Your task to perform on an android device: open sync settings in chrome Image 0: 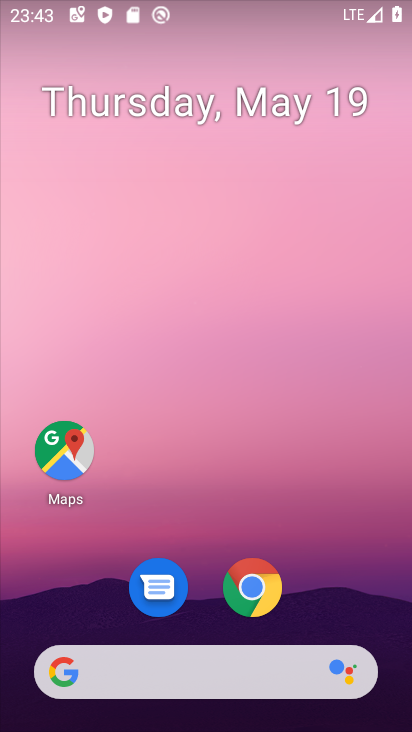
Step 0: drag from (243, 699) to (189, 105)
Your task to perform on an android device: open sync settings in chrome Image 1: 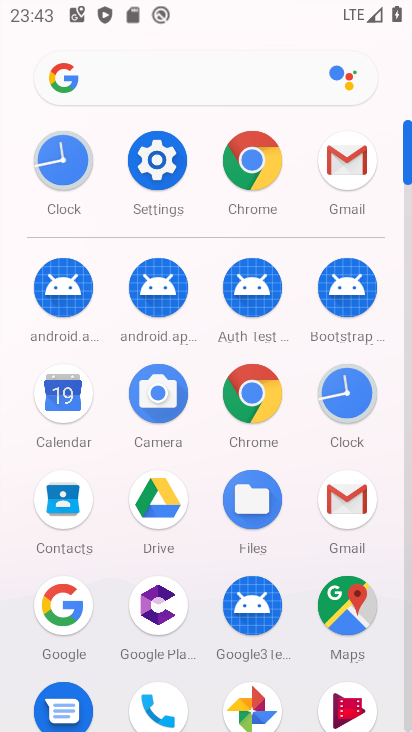
Step 1: click (245, 174)
Your task to perform on an android device: open sync settings in chrome Image 2: 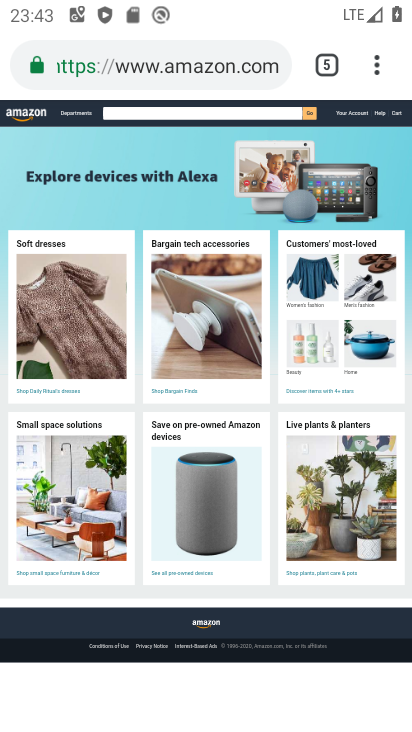
Step 2: click (364, 84)
Your task to perform on an android device: open sync settings in chrome Image 3: 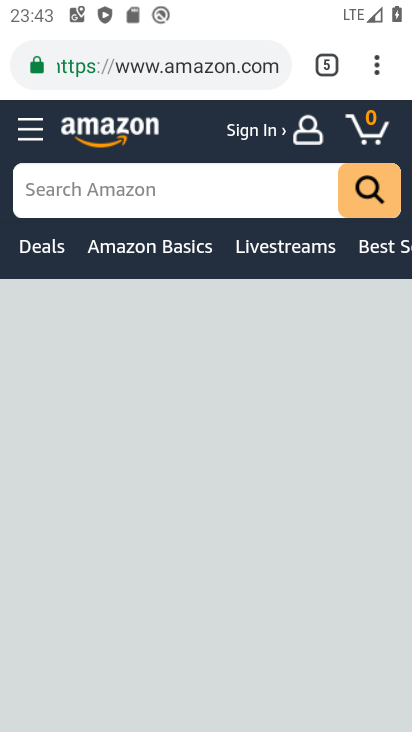
Step 3: click (367, 65)
Your task to perform on an android device: open sync settings in chrome Image 4: 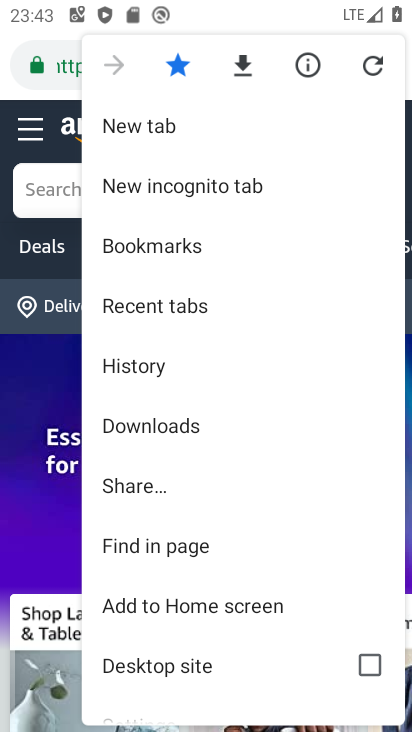
Step 4: drag from (190, 610) to (183, 439)
Your task to perform on an android device: open sync settings in chrome Image 5: 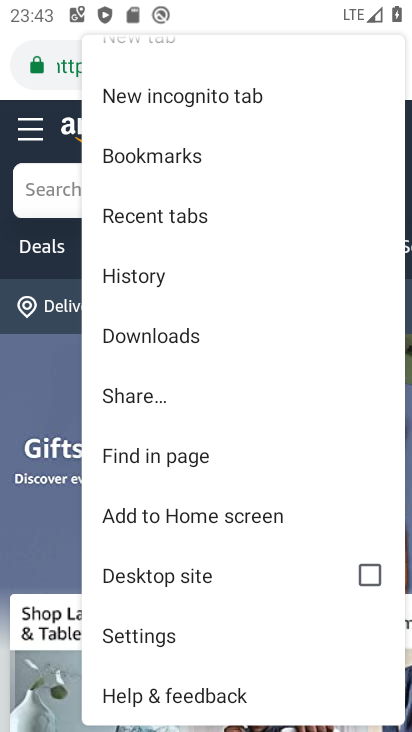
Step 5: click (197, 622)
Your task to perform on an android device: open sync settings in chrome Image 6: 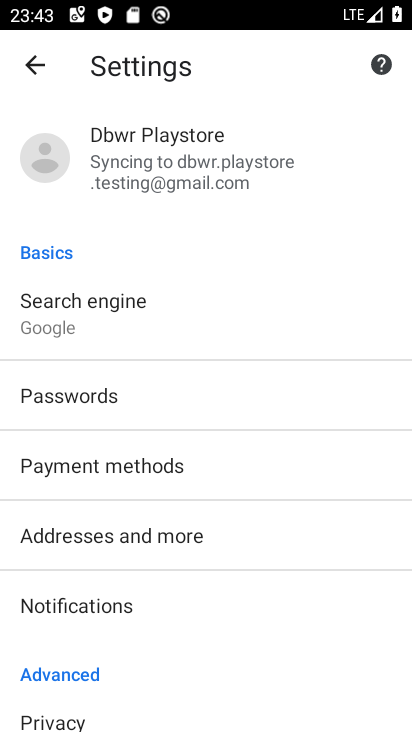
Step 6: drag from (176, 548) to (203, 288)
Your task to perform on an android device: open sync settings in chrome Image 7: 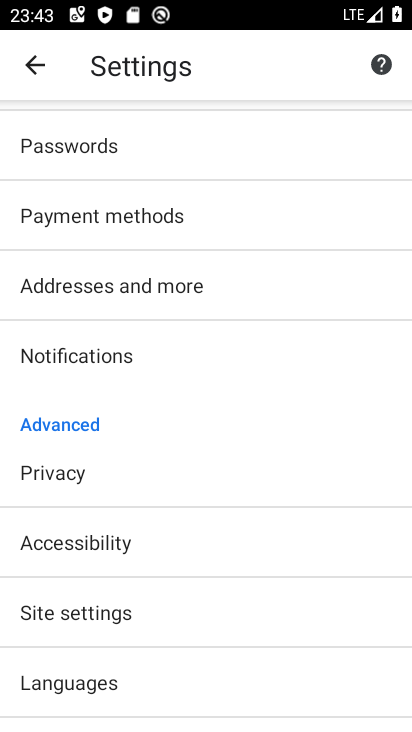
Step 7: drag from (212, 562) to (195, 409)
Your task to perform on an android device: open sync settings in chrome Image 8: 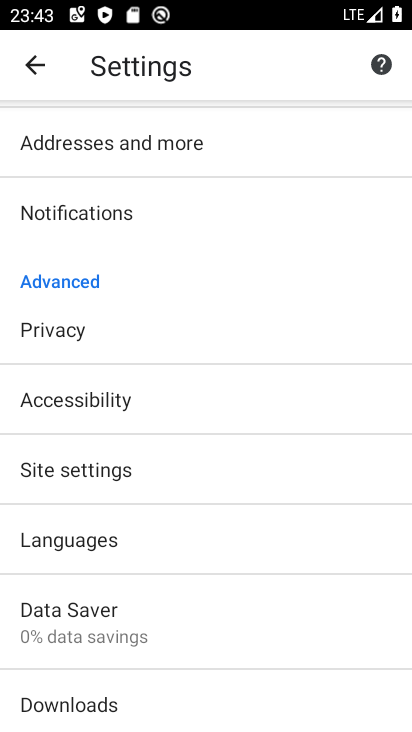
Step 8: drag from (196, 586) to (196, 436)
Your task to perform on an android device: open sync settings in chrome Image 9: 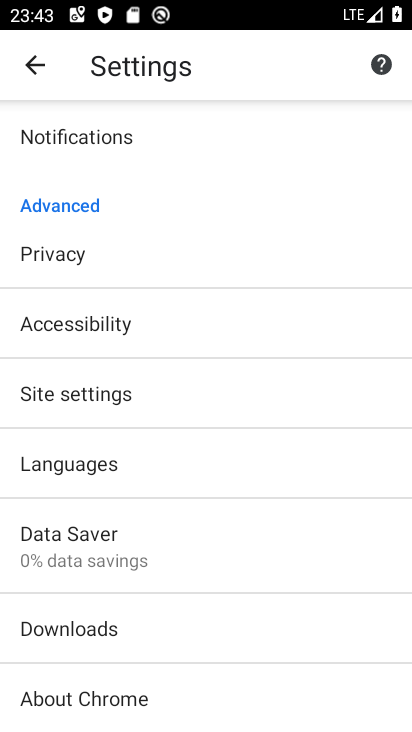
Step 9: click (103, 388)
Your task to perform on an android device: open sync settings in chrome Image 10: 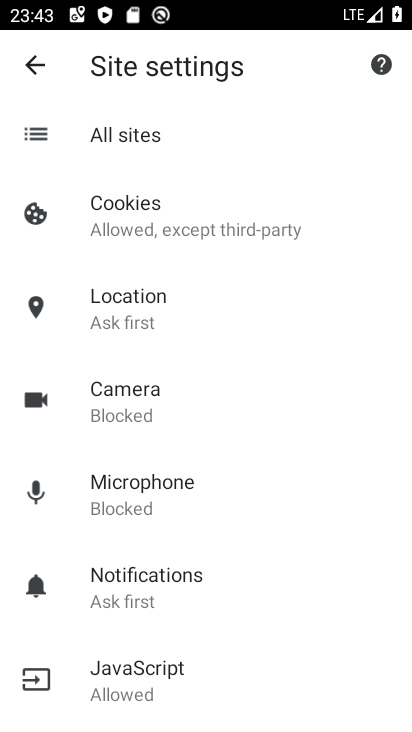
Step 10: drag from (201, 593) to (217, 337)
Your task to perform on an android device: open sync settings in chrome Image 11: 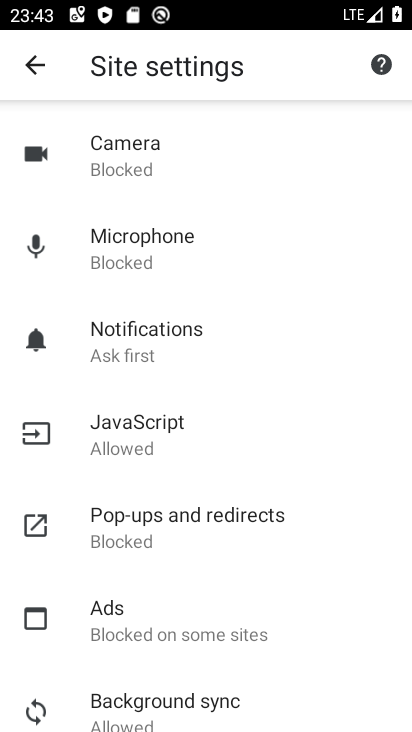
Step 11: click (194, 686)
Your task to perform on an android device: open sync settings in chrome Image 12: 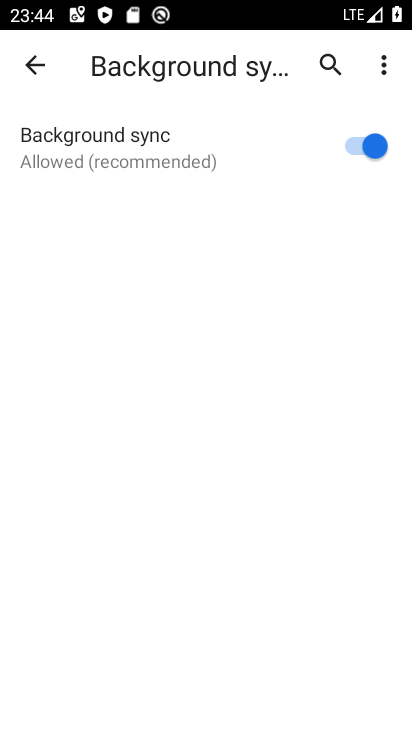
Step 12: click (337, 138)
Your task to perform on an android device: open sync settings in chrome Image 13: 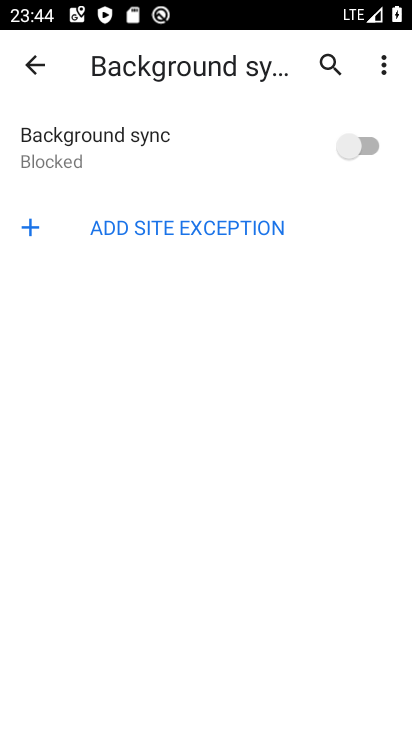
Step 13: click (337, 138)
Your task to perform on an android device: open sync settings in chrome Image 14: 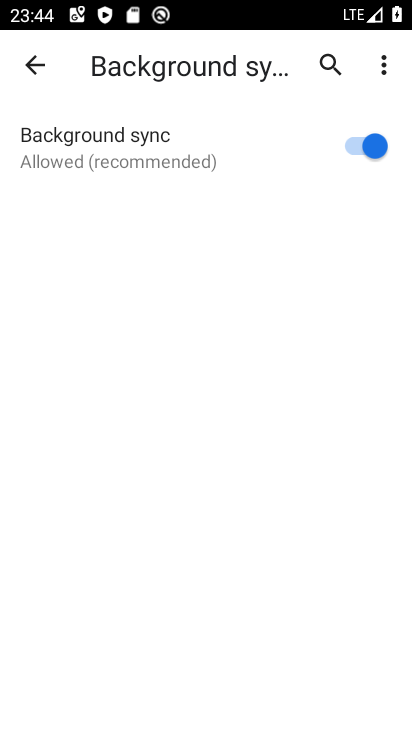
Step 14: task complete